Your task to perform on an android device: open app "Adobe Express: Graphic Design" (install if not already installed) Image 0: 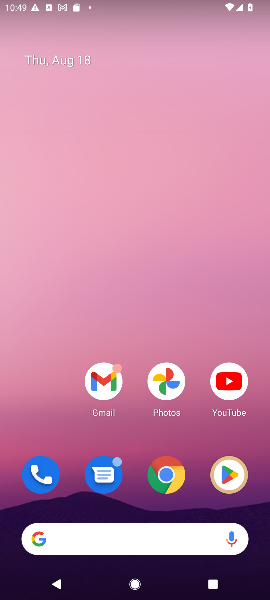
Step 0: drag from (139, 504) to (113, 16)
Your task to perform on an android device: open app "Adobe Express: Graphic Design" (install if not already installed) Image 1: 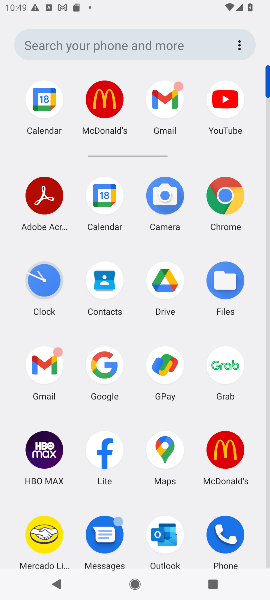
Step 1: drag from (140, 423) to (128, 146)
Your task to perform on an android device: open app "Adobe Express: Graphic Design" (install if not already installed) Image 2: 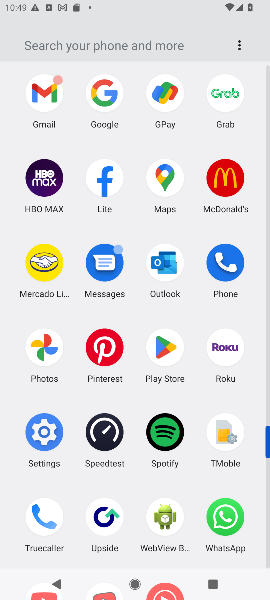
Step 2: click (152, 348)
Your task to perform on an android device: open app "Adobe Express: Graphic Design" (install if not already installed) Image 3: 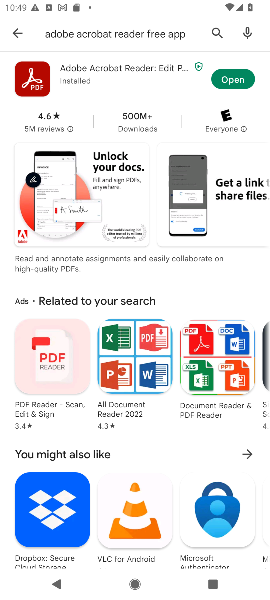
Step 3: click (18, 35)
Your task to perform on an android device: open app "Adobe Express: Graphic Design" (install if not already installed) Image 4: 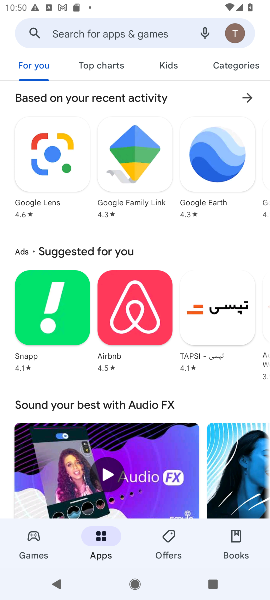
Step 4: click (100, 24)
Your task to perform on an android device: open app "Adobe Express: Graphic Design" (install if not already installed) Image 5: 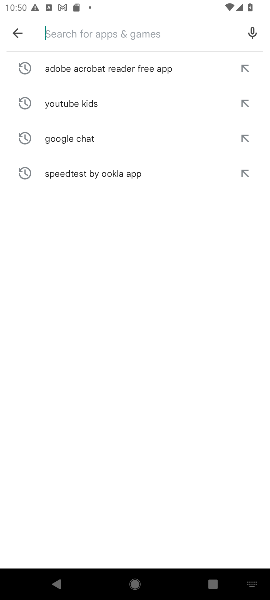
Step 5: type "Adobe Express: Graphic Design"
Your task to perform on an android device: open app "Adobe Express: Graphic Design" (install if not already installed) Image 6: 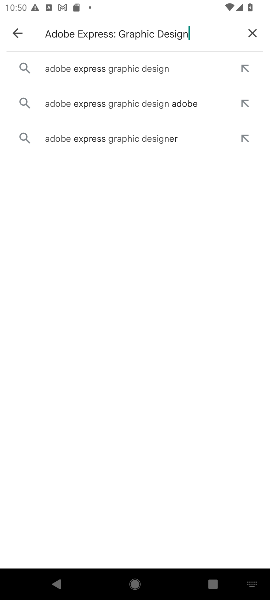
Step 6: click (77, 63)
Your task to perform on an android device: open app "Adobe Express: Graphic Design" (install if not already installed) Image 7: 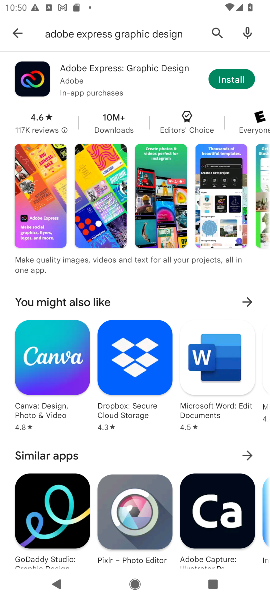
Step 7: click (237, 78)
Your task to perform on an android device: open app "Adobe Express: Graphic Design" (install if not already installed) Image 8: 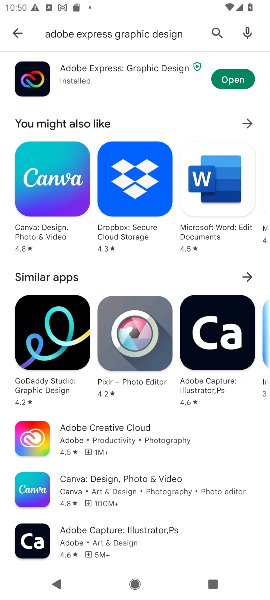
Step 8: click (231, 68)
Your task to perform on an android device: open app "Adobe Express: Graphic Design" (install if not already installed) Image 9: 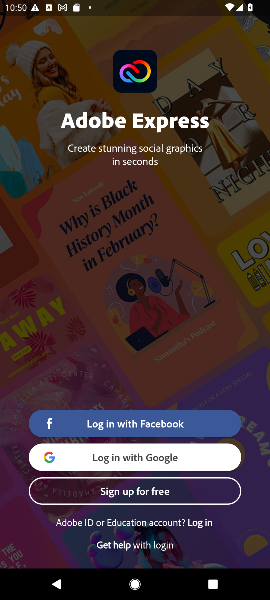
Step 9: task complete